Your task to perform on an android device: see tabs open on other devices in the chrome app Image 0: 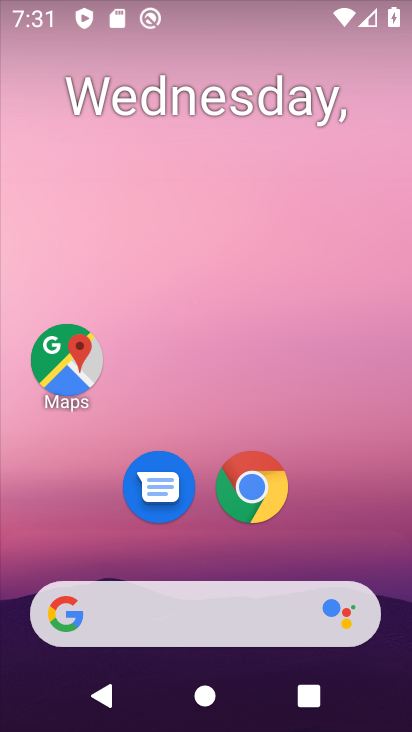
Step 0: click (247, 491)
Your task to perform on an android device: see tabs open on other devices in the chrome app Image 1: 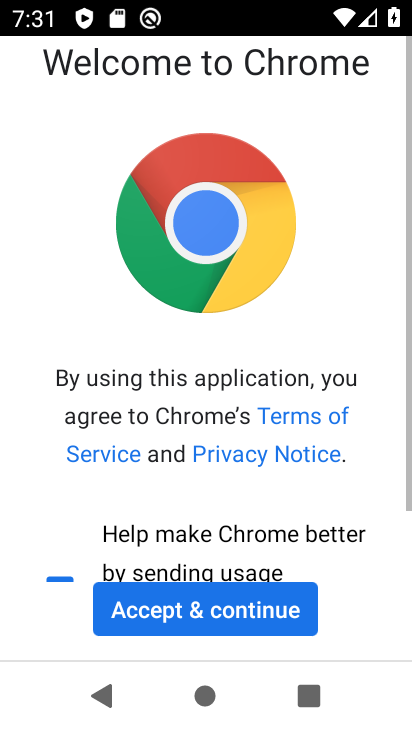
Step 1: click (207, 598)
Your task to perform on an android device: see tabs open on other devices in the chrome app Image 2: 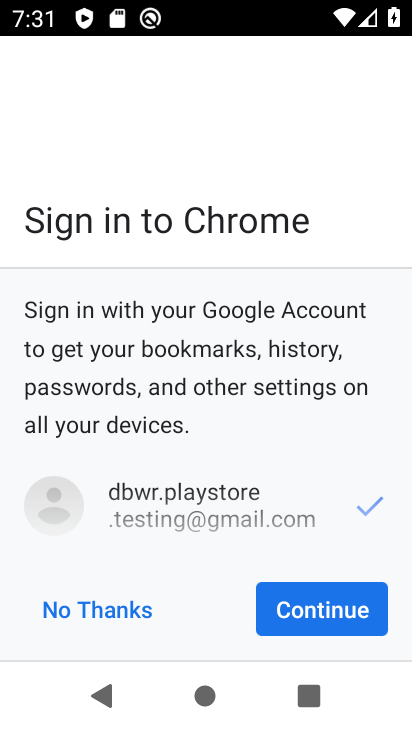
Step 2: click (73, 615)
Your task to perform on an android device: see tabs open on other devices in the chrome app Image 3: 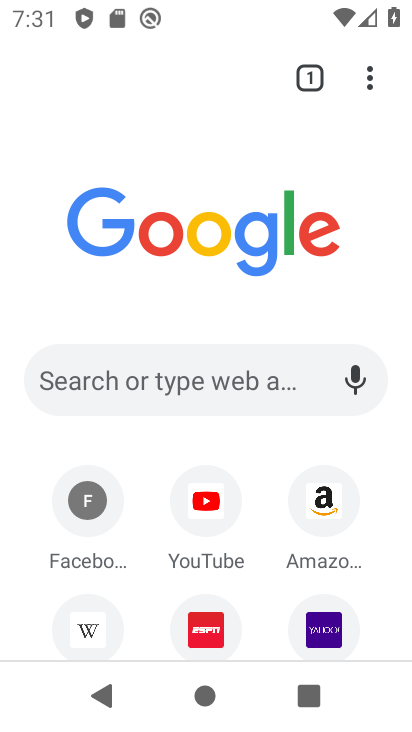
Step 3: click (371, 82)
Your task to perform on an android device: see tabs open on other devices in the chrome app Image 4: 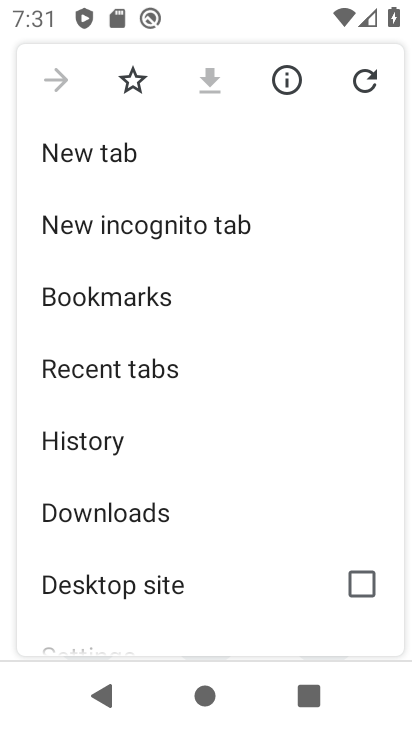
Step 4: click (77, 367)
Your task to perform on an android device: see tabs open on other devices in the chrome app Image 5: 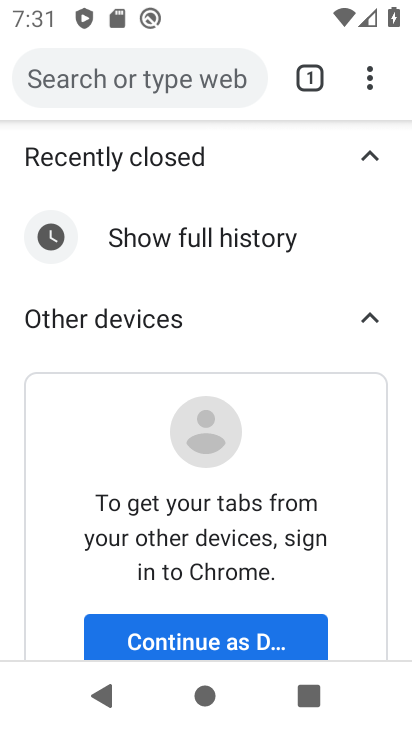
Step 5: drag from (222, 535) to (220, 157)
Your task to perform on an android device: see tabs open on other devices in the chrome app Image 6: 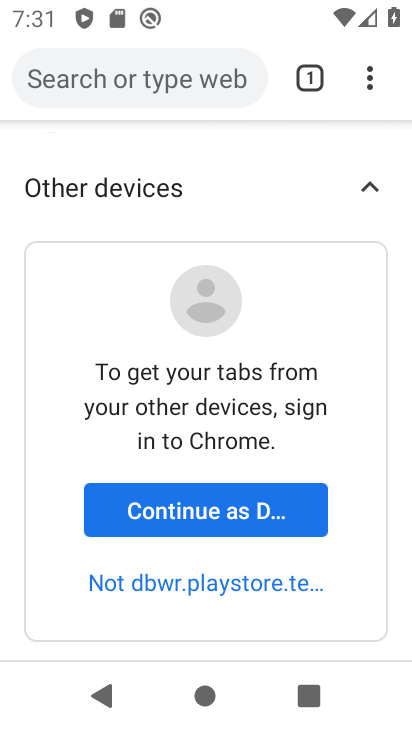
Step 6: click (187, 508)
Your task to perform on an android device: see tabs open on other devices in the chrome app Image 7: 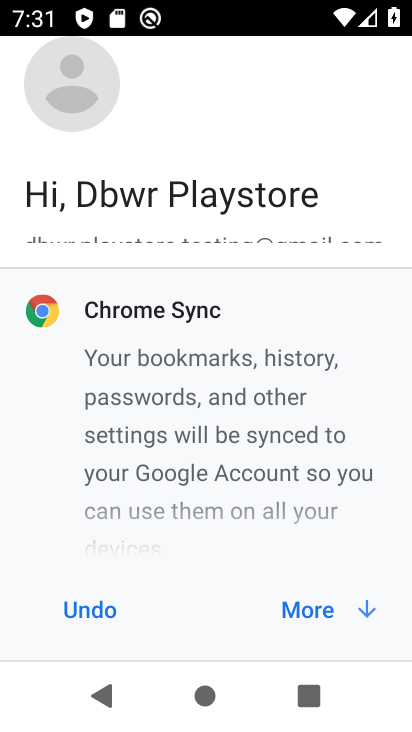
Step 7: click (317, 614)
Your task to perform on an android device: see tabs open on other devices in the chrome app Image 8: 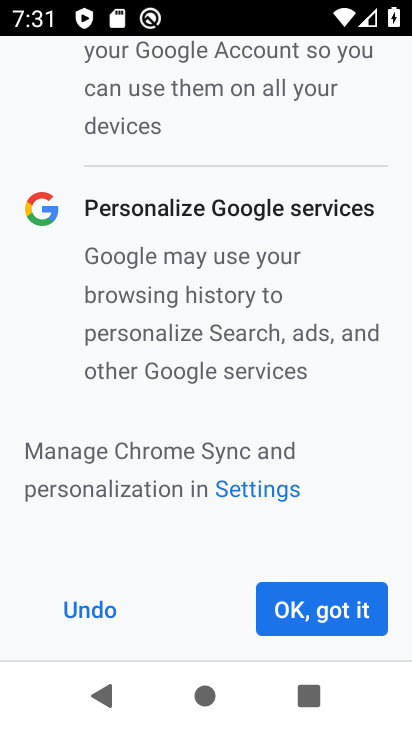
Step 8: click (317, 614)
Your task to perform on an android device: see tabs open on other devices in the chrome app Image 9: 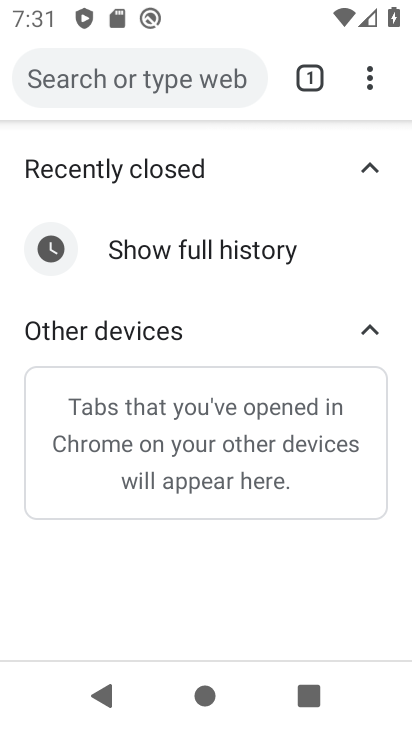
Step 9: task complete